Your task to perform on an android device: Open Wikipedia Image 0: 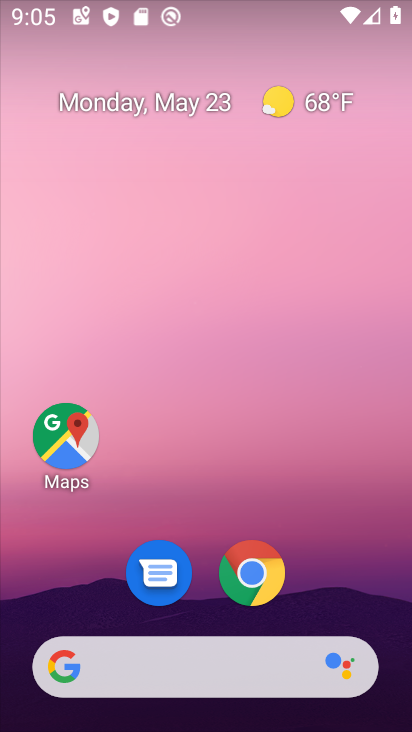
Step 0: drag from (215, 675) to (230, 199)
Your task to perform on an android device: Open Wikipedia Image 1: 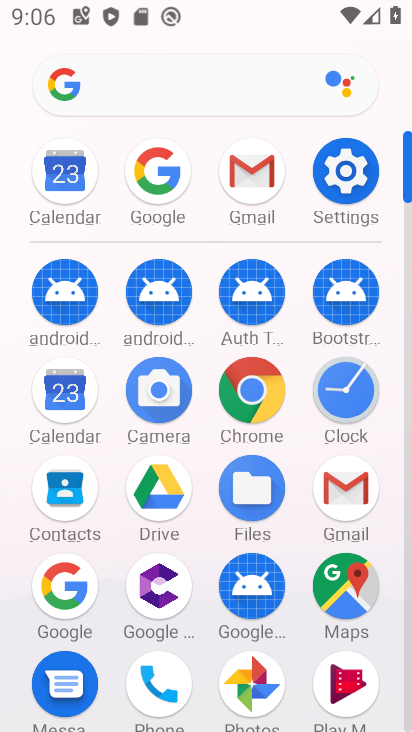
Step 1: click (264, 390)
Your task to perform on an android device: Open Wikipedia Image 2: 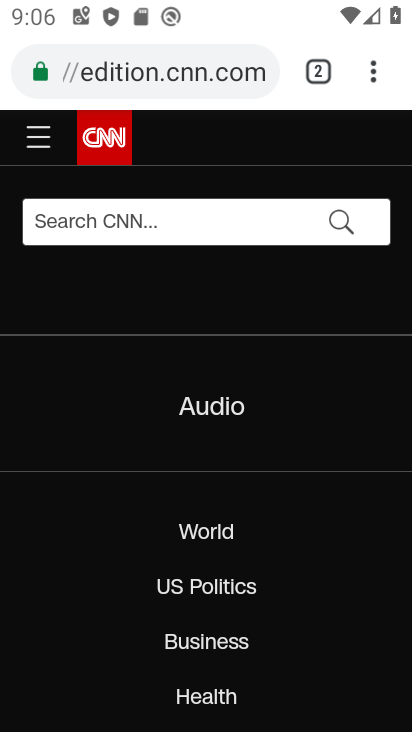
Step 2: click (211, 78)
Your task to perform on an android device: Open Wikipedia Image 3: 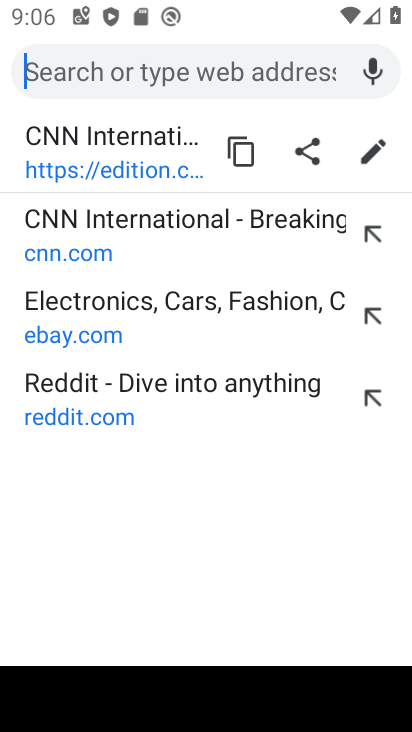
Step 3: type "wikipedia"
Your task to perform on an android device: Open Wikipedia Image 4: 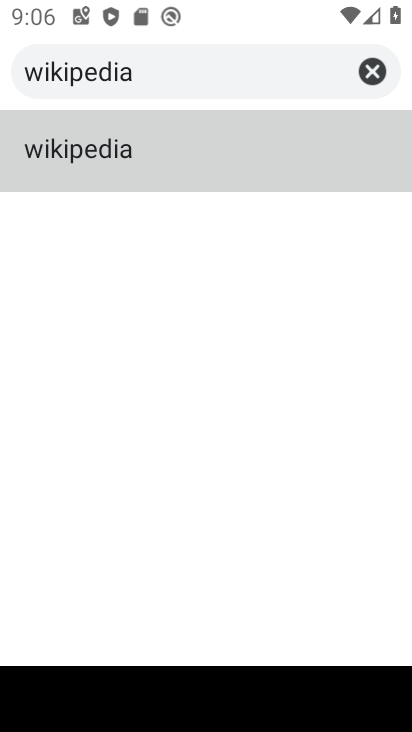
Step 4: click (131, 152)
Your task to perform on an android device: Open Wikipedia Image 5: 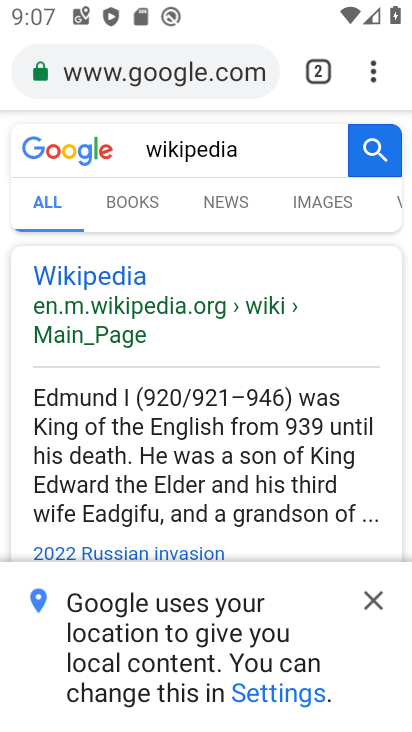
Step 5: click (104, 274)
Your task to perform on an android device: Open Wikipedia Image 6: 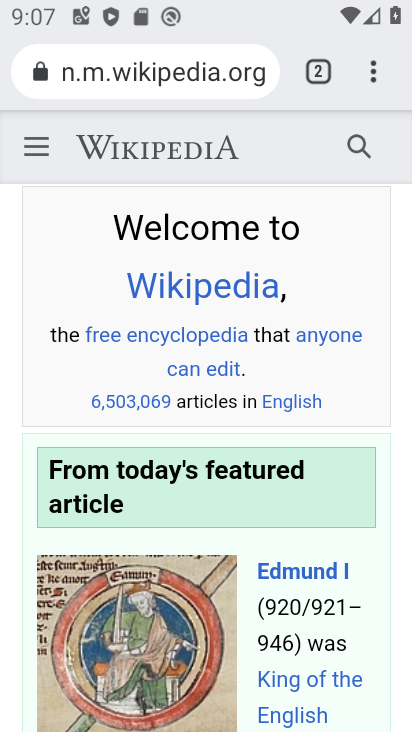
Step 6: task complete